Your task to perform on an android device: Open the map Image 0: 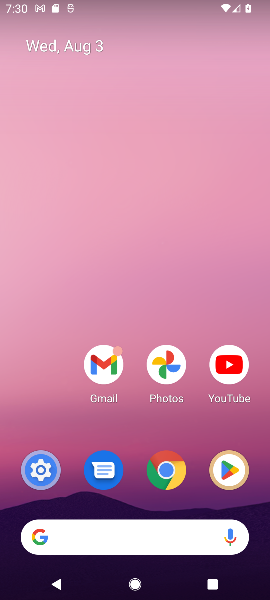
Step 0: press home button
Your task to perform on an android device: Open the map Image 1: 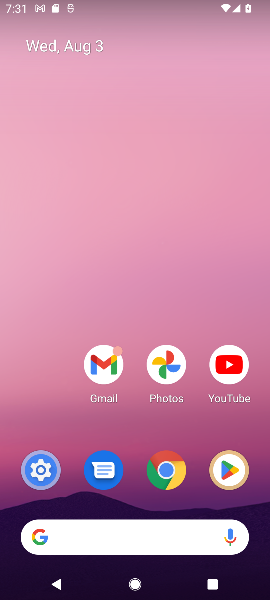
Step 1: drag from (132, 441) to (122, 59)
Your task to perform on an android device: Open the map Image 2: 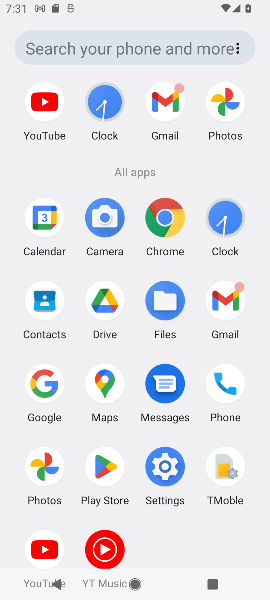
Step 2: click (103, 379)
Your task to perform on an android device: Open the map Image 3: 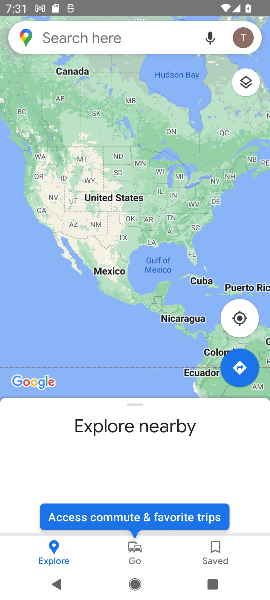
Step 3: task complete